Your task to perform on an android device: Open network settings Image 0: 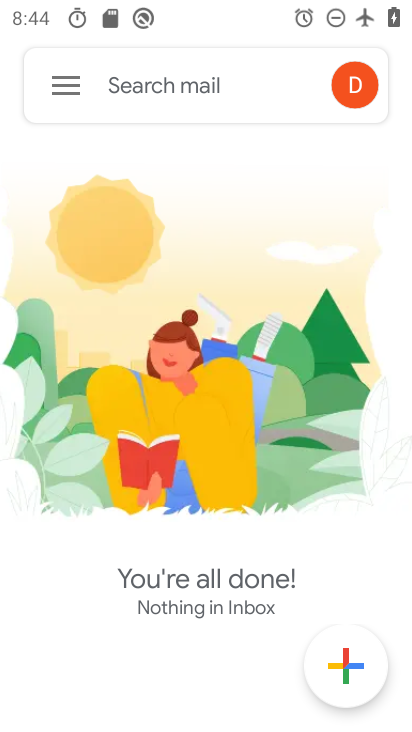
Step 0: press home button
Your task to perform on an android device: Open network settings Image 1: 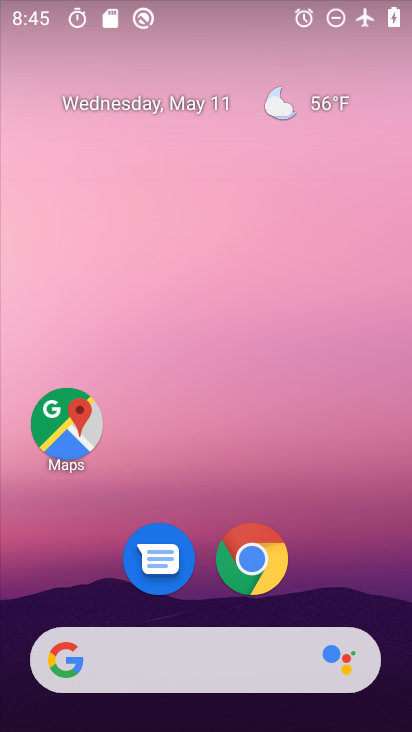
Step 1: drag from (324, 581) to (376, 58)
Your task to perform on an android device: Open network settings Image 2: 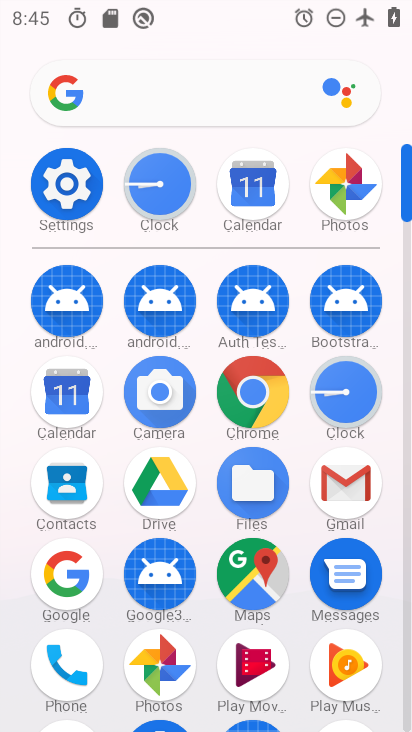
Step 2: click (69, 169)
Your task to perform on an android device: Open network settings Image 3: 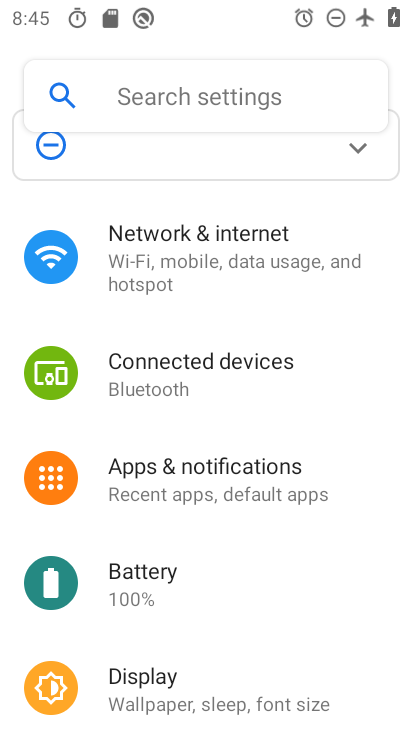
Step 3: click (199, 248)
Your task to perform on an android device: Open network settings Image 4: 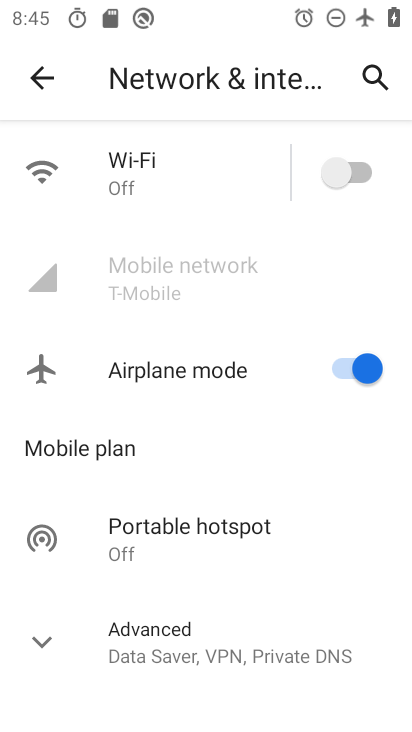
Step 4: task complete